Your task to perform on an android device: Go to ESPN.com Image 0: 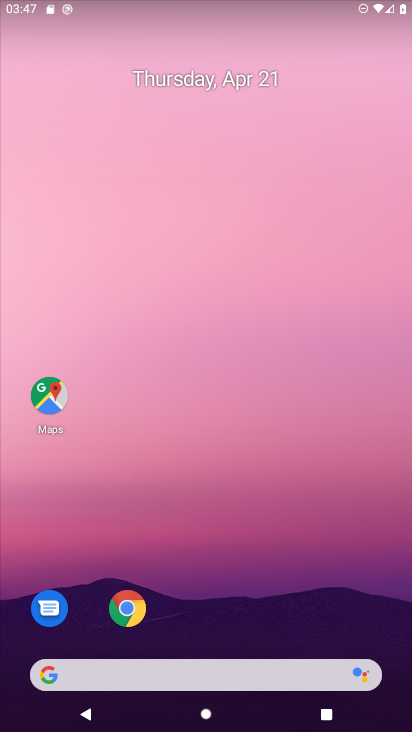
Step 0: drag from (222, 282) to (223, 143)
Your task to perform on an android device: Go to ESPN.com Image 1: 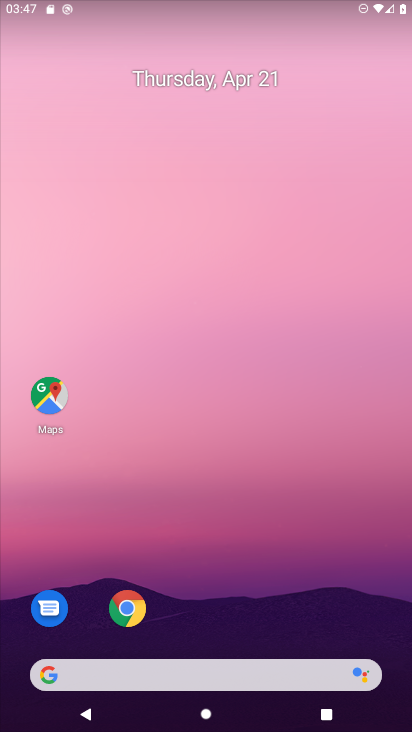
Step 1: drag from (256, 485) to (284, 249)
Your task to perform on an android device: Go to ESPN.com Image 2: 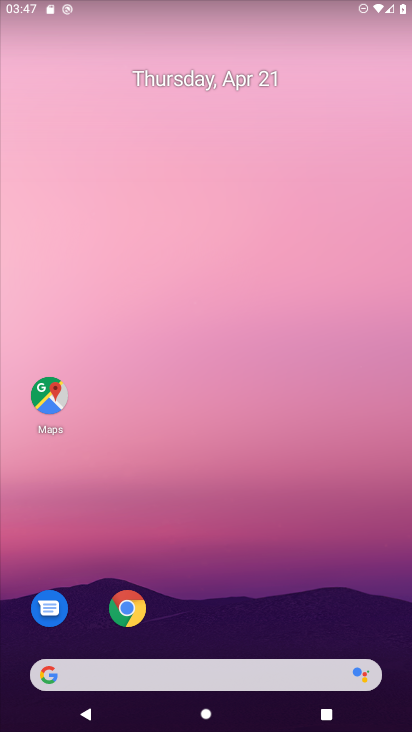
Step 2: drag from (174, 682) to (243, 229)
Your task to perform on an android device: Go to ESPN.com Image 3: 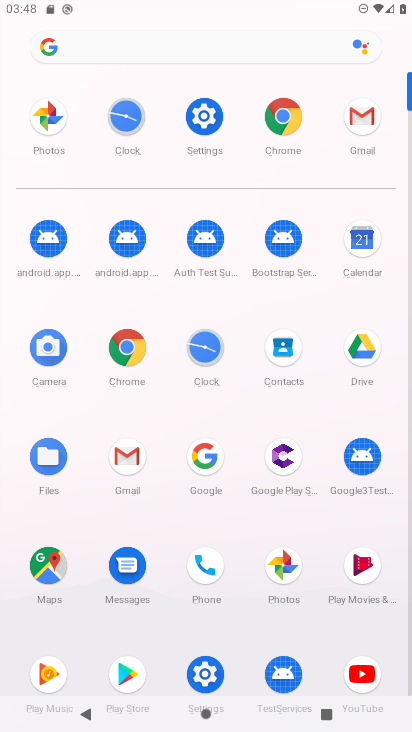
Step 3: click (268, 112)
Your task to perform on an android device: Go to ESPN.com Image 4: 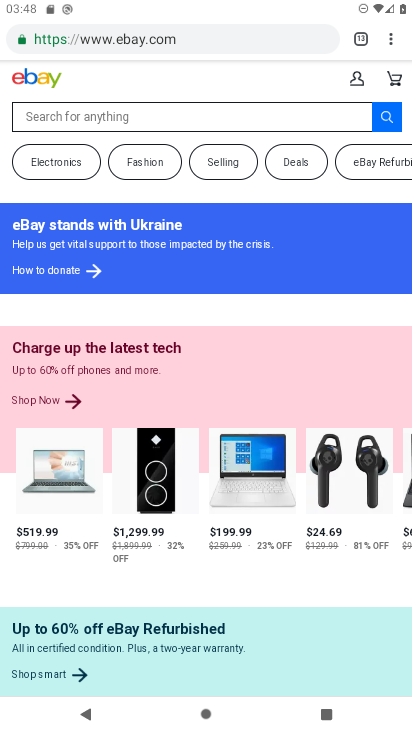
Step 4: click (387, 33)
Your task to perform on an android device: Go to ESPN.com Image 5: 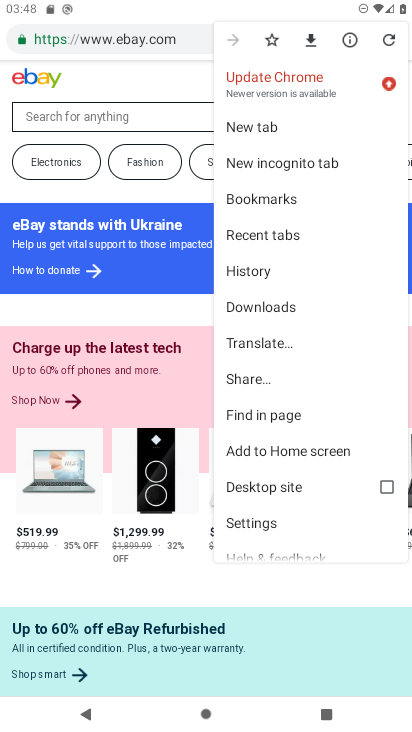
Step 5: click (274, 121)
Your task to perform on an android device: Go to ESPN.com Image 6: 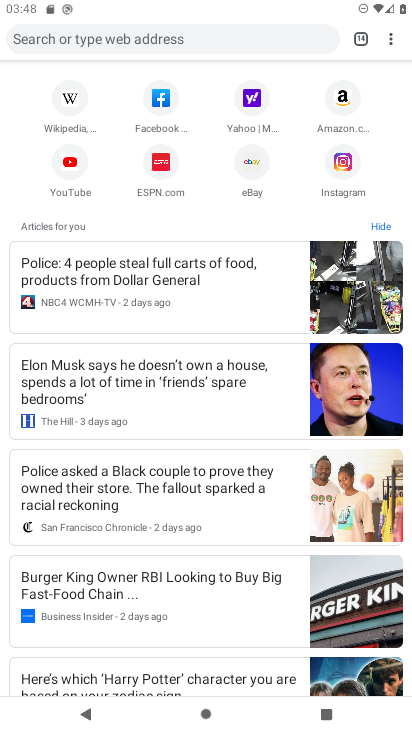
Step 6: click (162, 178)
Your task to perform on an android device: Go to ESPN.com Image 7: 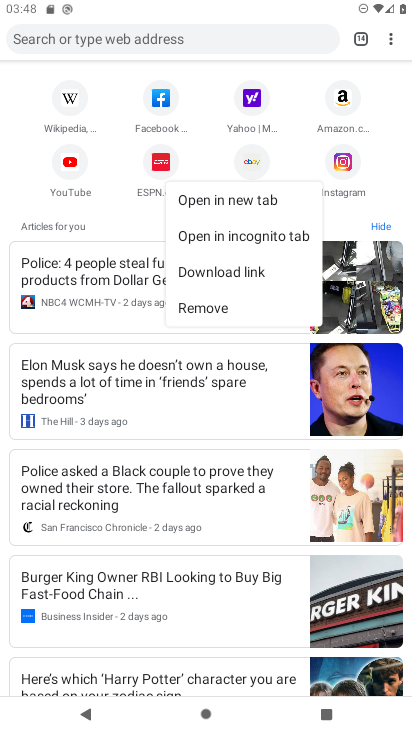
Step 7: click (153, 166)
Your task to perform on an android device: Go to ESPN.com Image 8: 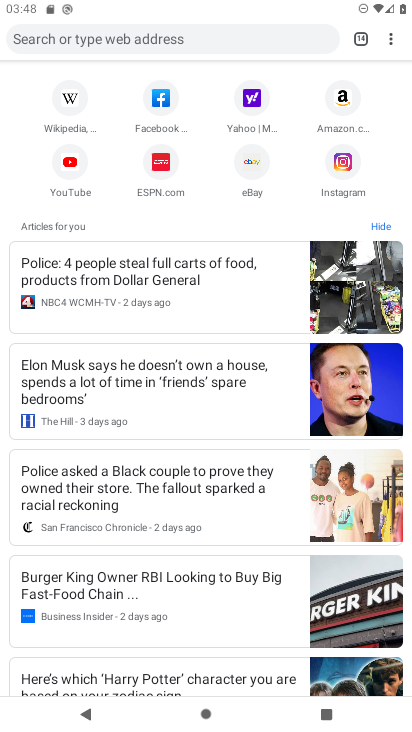
Step 8: click (154, 166)
Your task to perform on an android device: Go to ESPN.com Image 9: 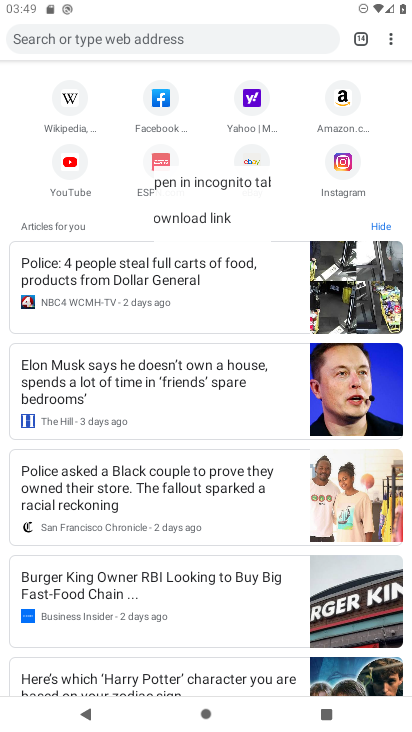
Step 9: click (154, 166)
Your task to perform on an android device: Go to ESPN.com Image 10: 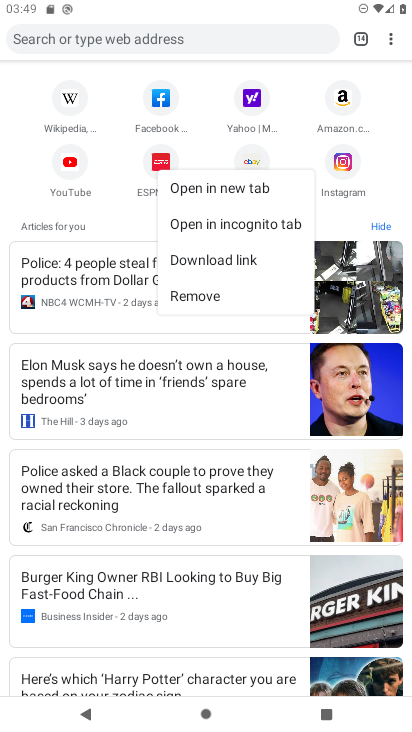
Step 10: click (162, 164)
Your task to perform on an android device: Go to ESPN.com Image 11: 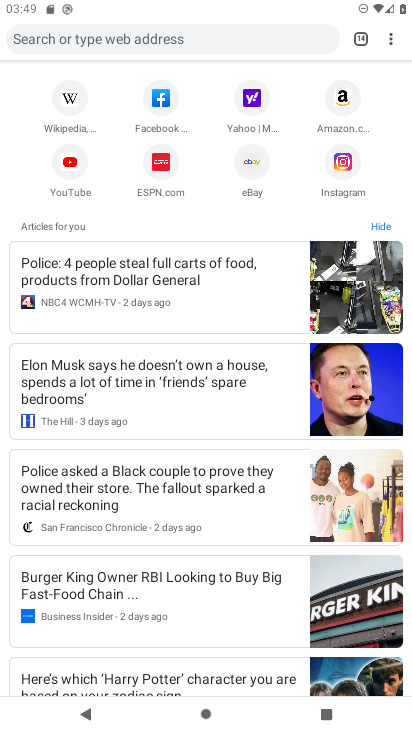
Step 11: click (162, 164)
Your task to perform on an android device: Go to ESPN.com Image 12: 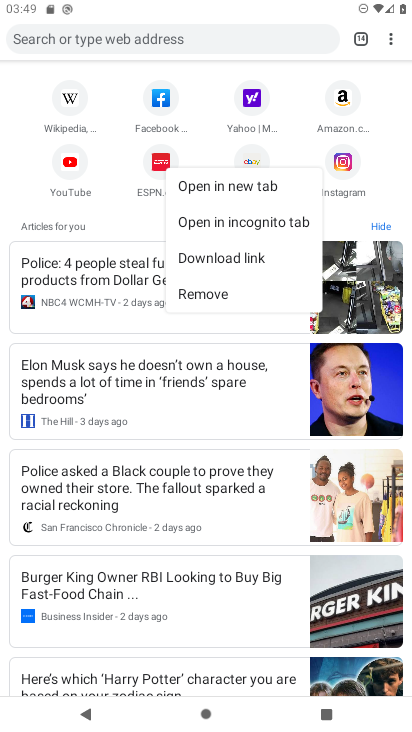
Step 12: click (162, 164)
Your task to perform on an android device: Go to ESPN.com Image 13: 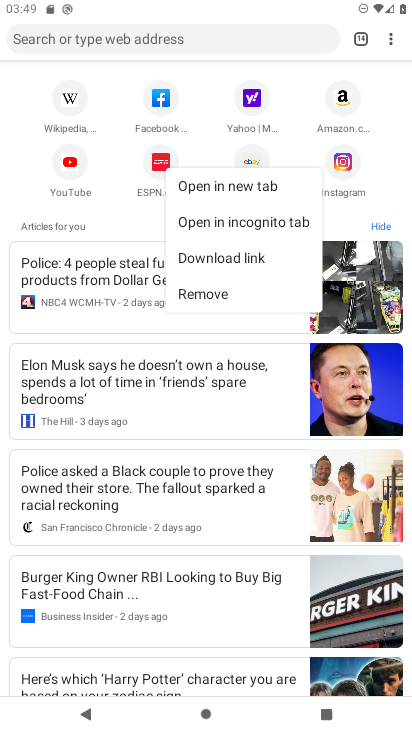
Step 13: click (187, 179)
Your task to perform on an android device: Go to ESPN.com Image 14: 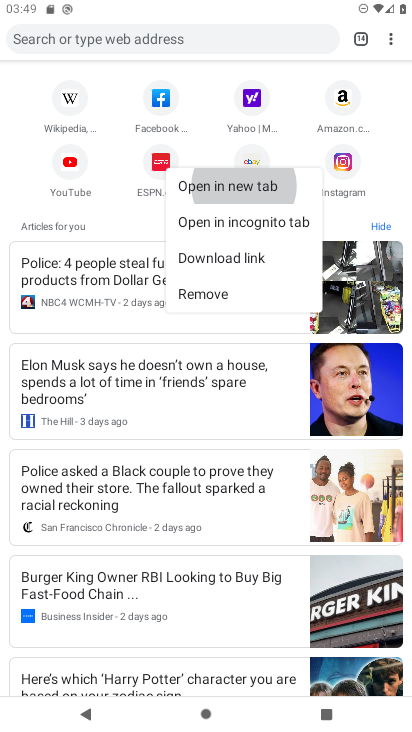
Step 14: click (201, 189)
Your task to perform on an android device: Go to ESPN.com Image 15: 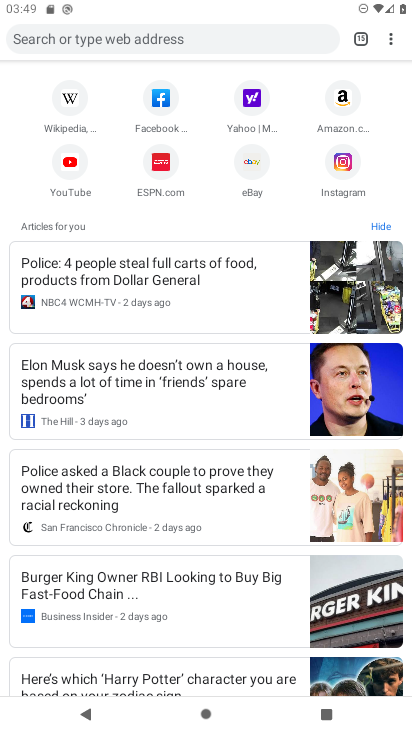
Step 15: click (159, 157)
Your task to perform on an android device: Go to ESPN.com Image 16: 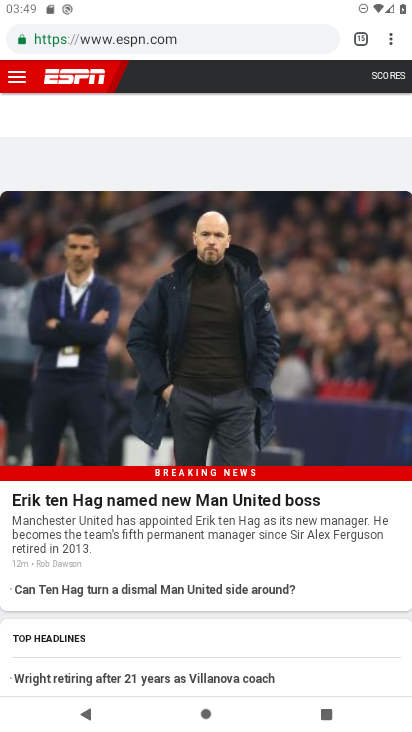
Step 16: task complete